Your task to perform on an android device: turn off sleep mode Image 0: 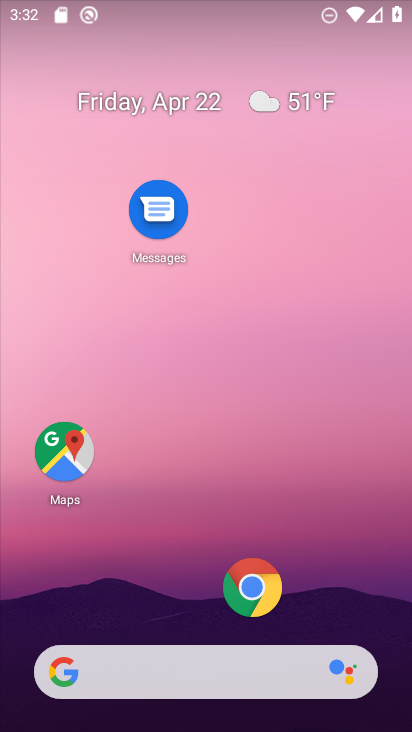
Step 0: drag from (196, 614) to (262, 185)
Your task to perform on an android device: turn off sleep mode Image 1: 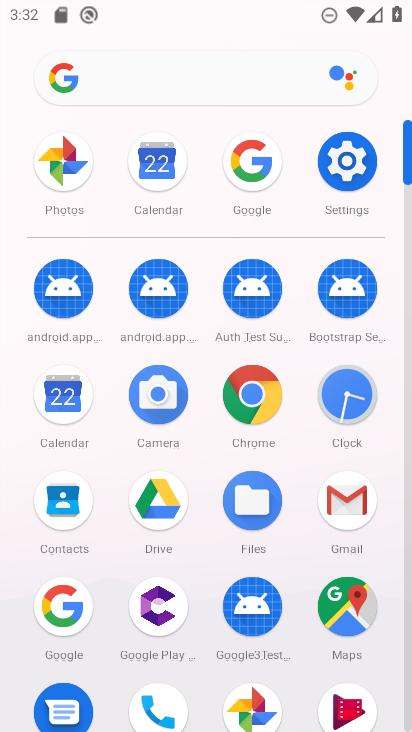
Step 1: click (345, 148)
Your task to perform on an android device: turn off sleep mode Image 2: 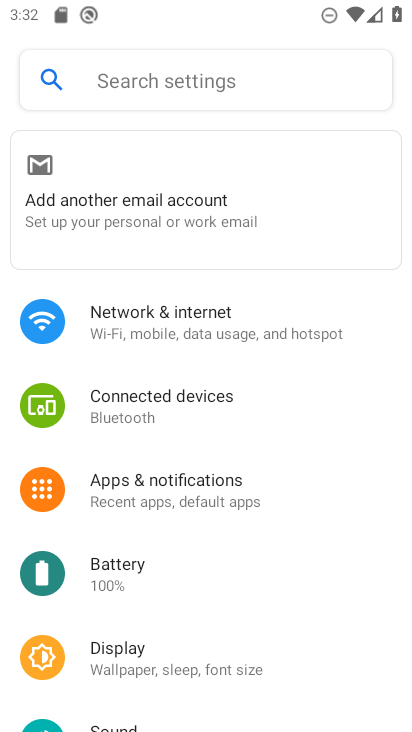
Step 2: click (137, 650)
Your task to perform on an android device: turn off sleep mode Image 3: 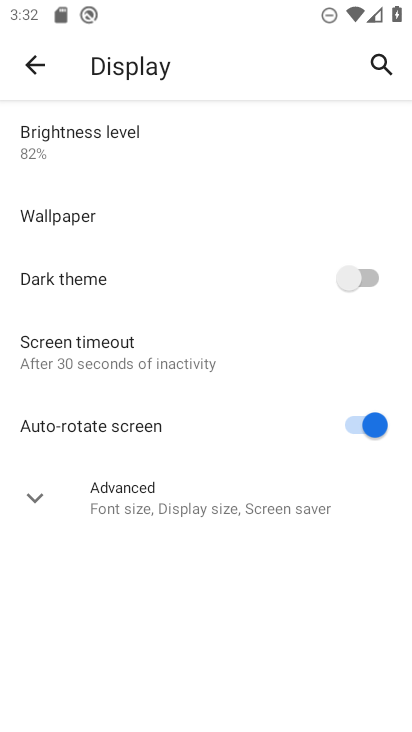
Step 3: click (124, 368)
Your task to perform on an android device: turn off sleep mode Image 4: 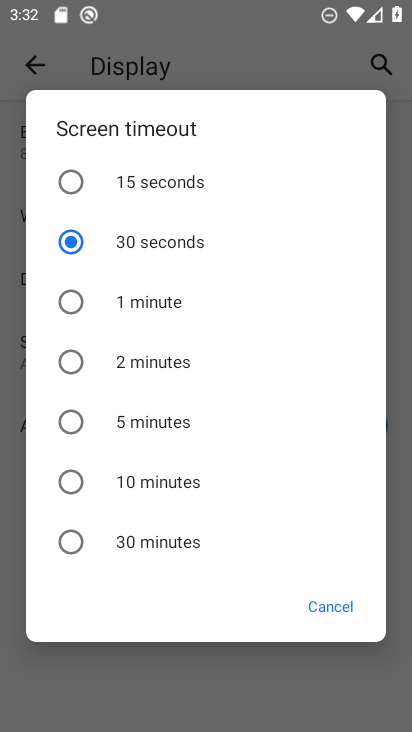
Step 4: click (166, 474)
Your task to perform on an android device: turn off sleep mode Image 5: 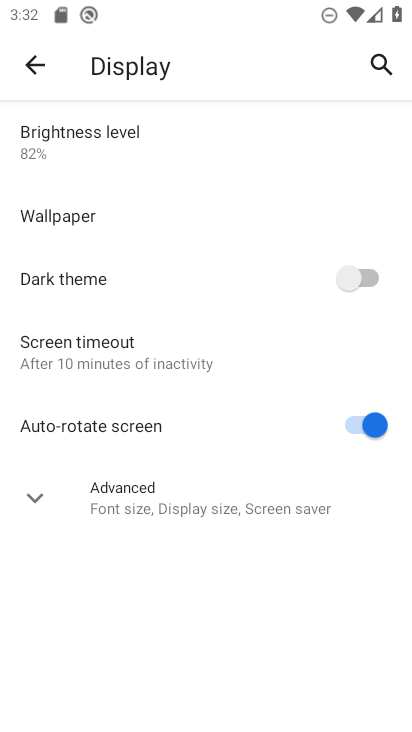
Step 5: task complete